Your task to perform on an android device: Open Chrome and go to settings Image 0: 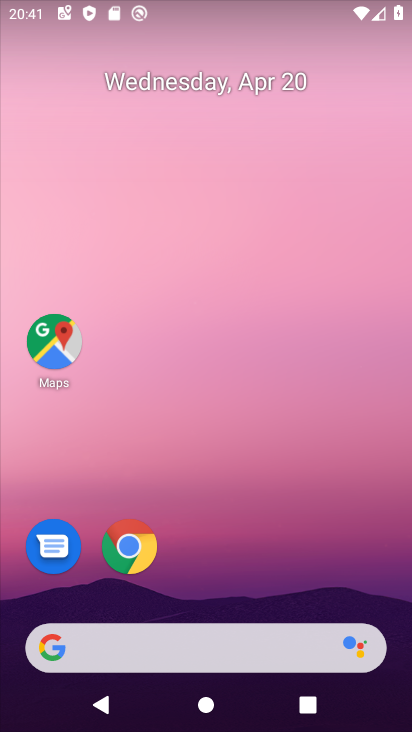
Step 0: click (141, 551)
Your task to perform on an android device: Open Chrome and go to settings Image 1: 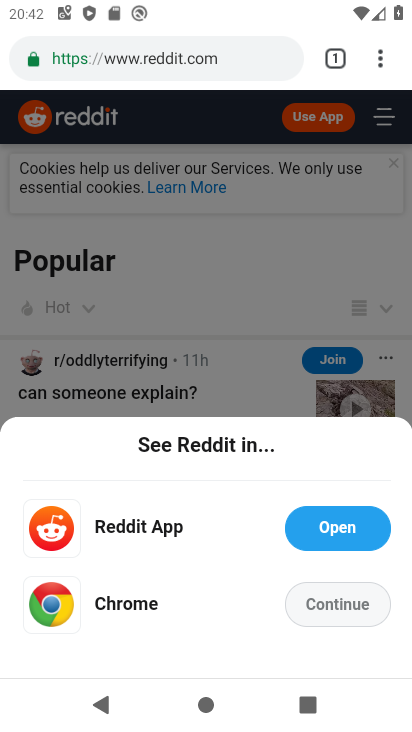
Step 1: click (247, 228)
Your task to perform on an android device: Open Chrome and go to settings Image 2: 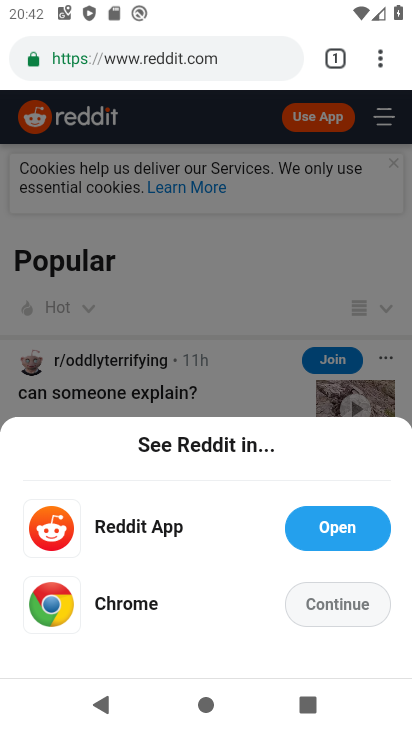
Step 2: click (375, 67)
Your task to perform on an android device: Open Chrome and go to settings Image 3: 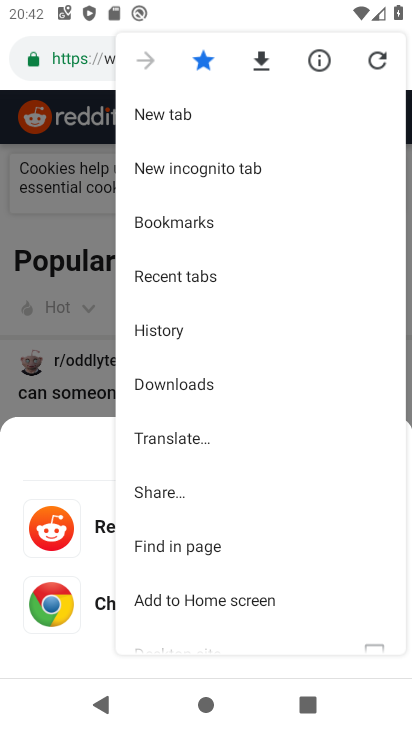
Step 3: drag from (233, 555) to (227, 222)
Your task to perform on an android device: Open Chrome and go to settings Image 4: 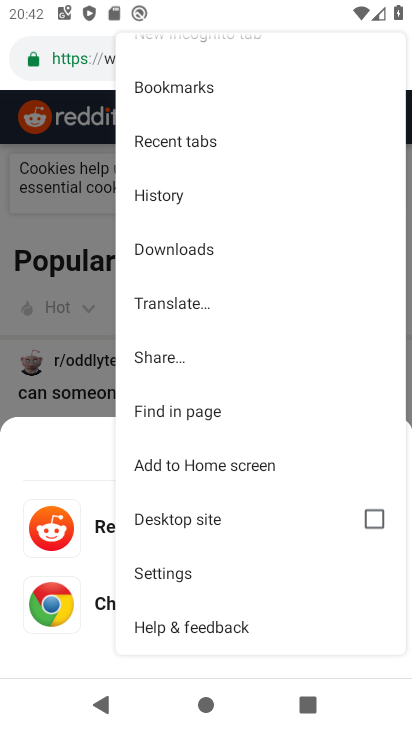
Step 4: click (209, 572)
Your task to perform on an android device: Open Chrome and go to settings Image 5: 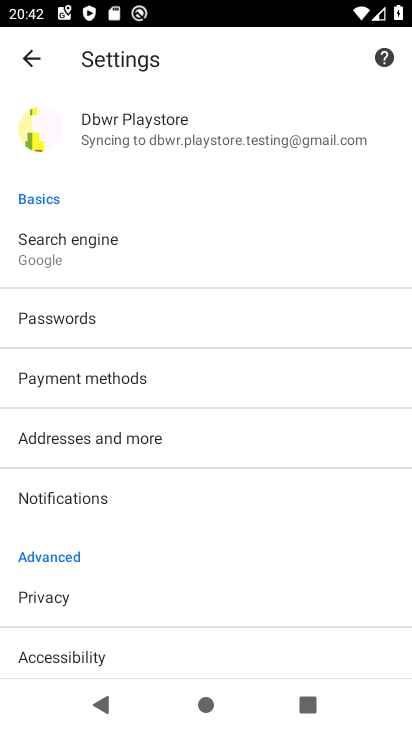
Step 5: task complete